Your task to perform on an android device: turn off notifications in google photos Image 0: 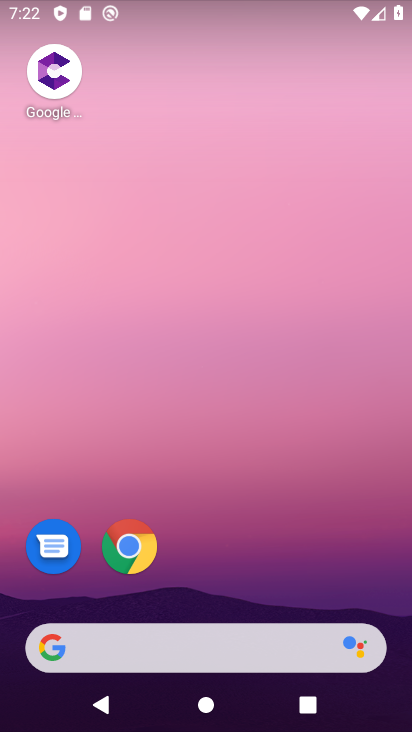
Step 0: drag from (237, 550) to (236, 0)
Your task to perform on an android device: turn off notifications in google photos Image 1: 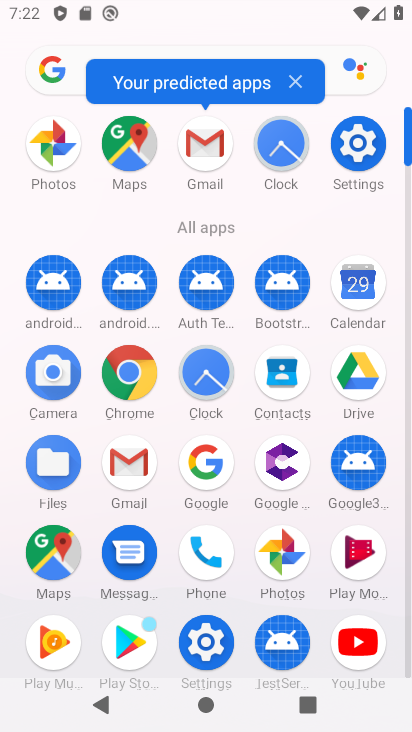
Step 1: click (273, 557)
Your task to perform on an android device: turn off notifications in google photos Image 2: 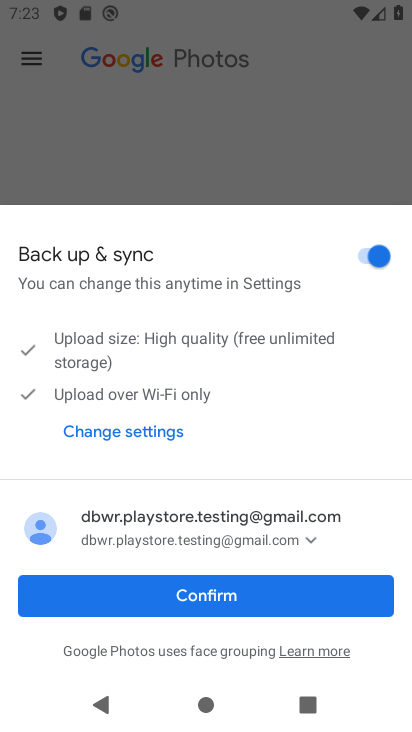
Step 2: click (217, 617)
Your task to perform on an android device: turn off notifications in google photos Image 3: 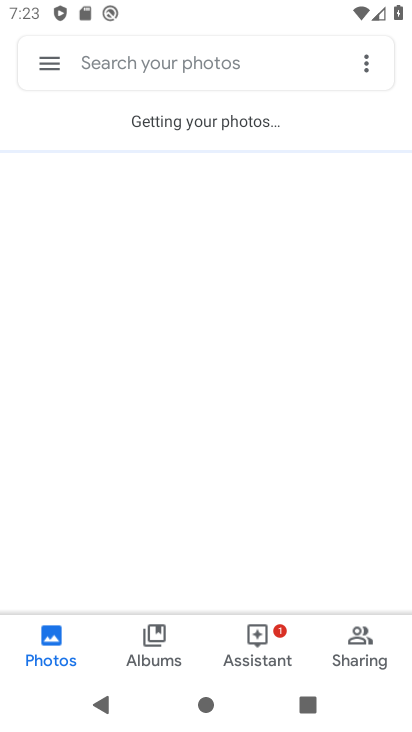
Step 3: click (44, 50)
Your task to perform on an android device: turn off notifications in google photos Image 4: 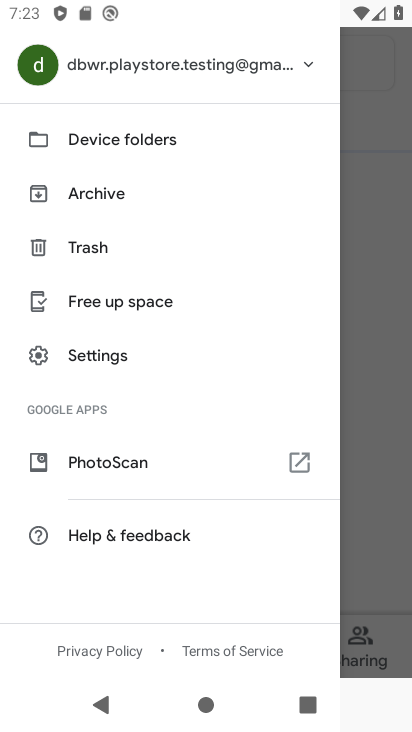
Step 4: click (99, 369)
Your task to perform on an android device: turn off notifications in google photos Image 5: 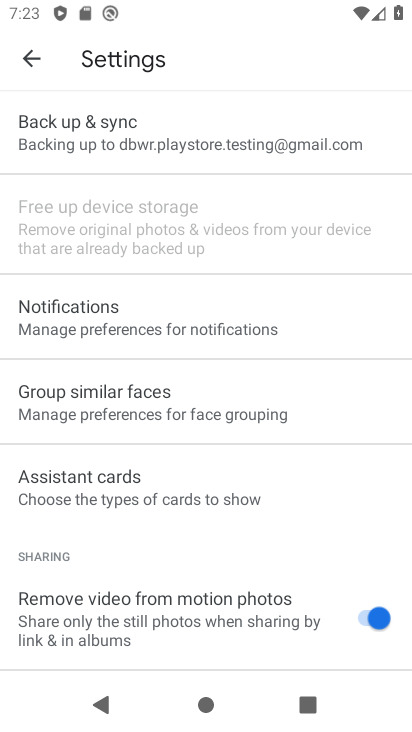
Step 5: click (105, 341)
Your task to perform on an android device: turn off notifications in google photos Image 6: 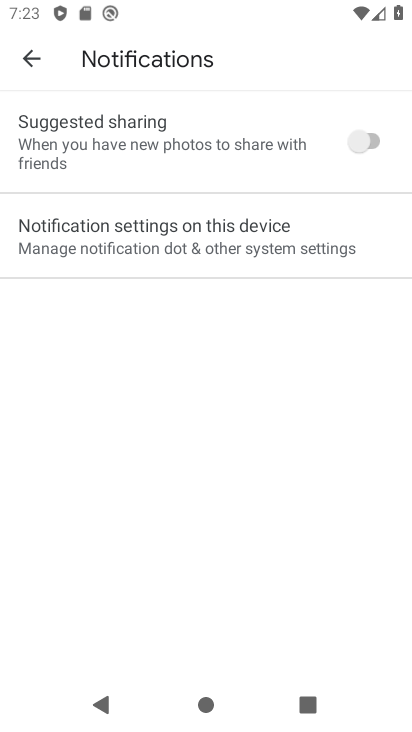
Step 6: click (376, 144)
Your task to perform on an android device: turn off notifications in google photos Image 7: 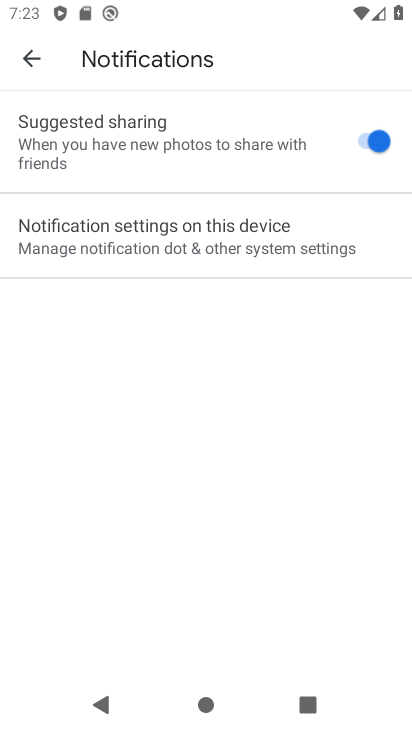
Step 7: task complete